Your task to perform on an android device: Open location settings Image 0: 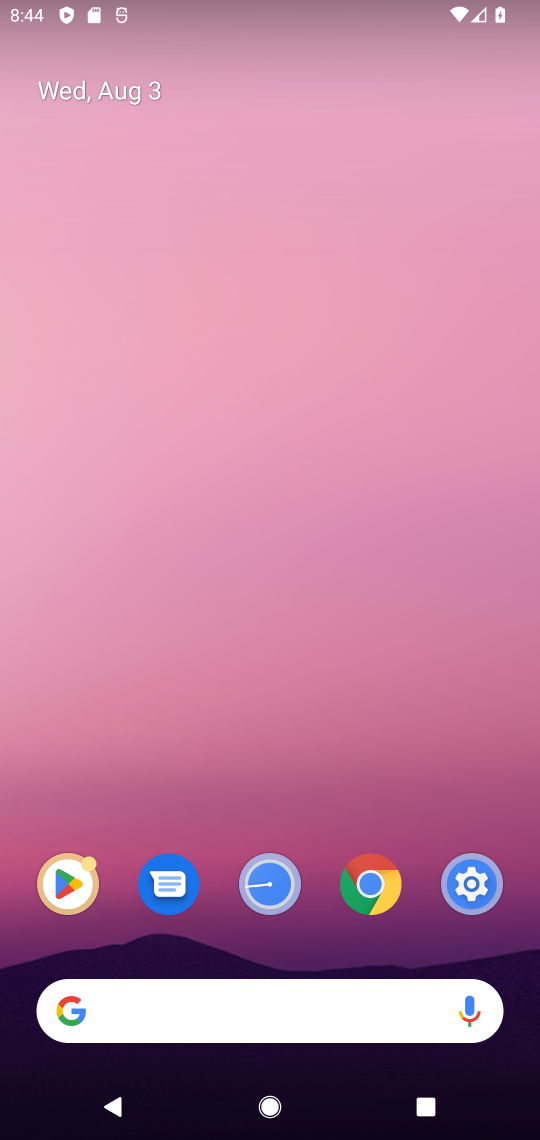
Step 0: drag from (201, 928) to (215, 117)
Your task to perform on an android device: Open location settings Image 1: 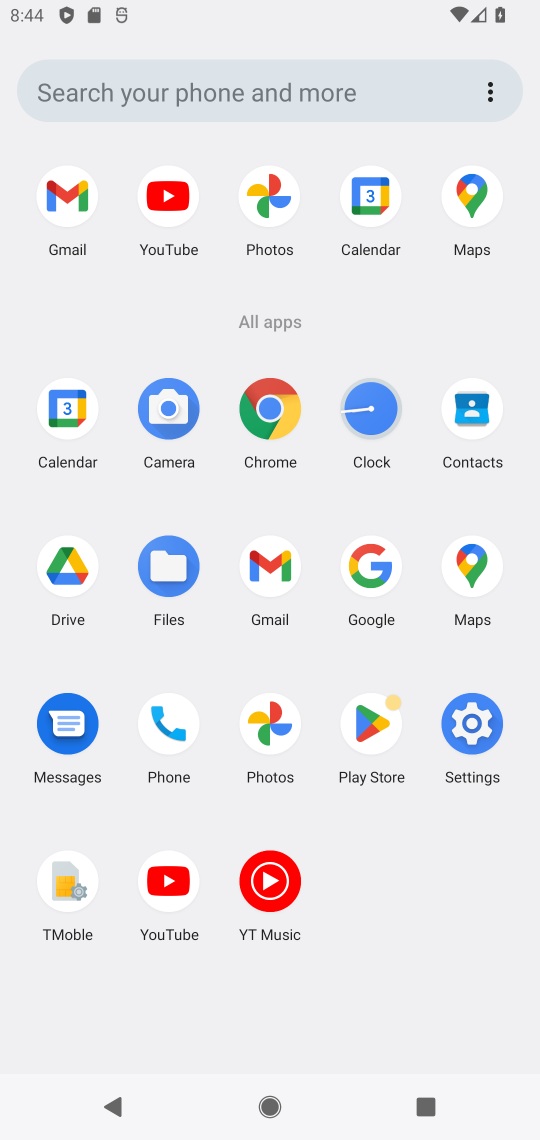
Step 1: click (475, 747)
Your task to perform on an android device: Open location settings Image 2: 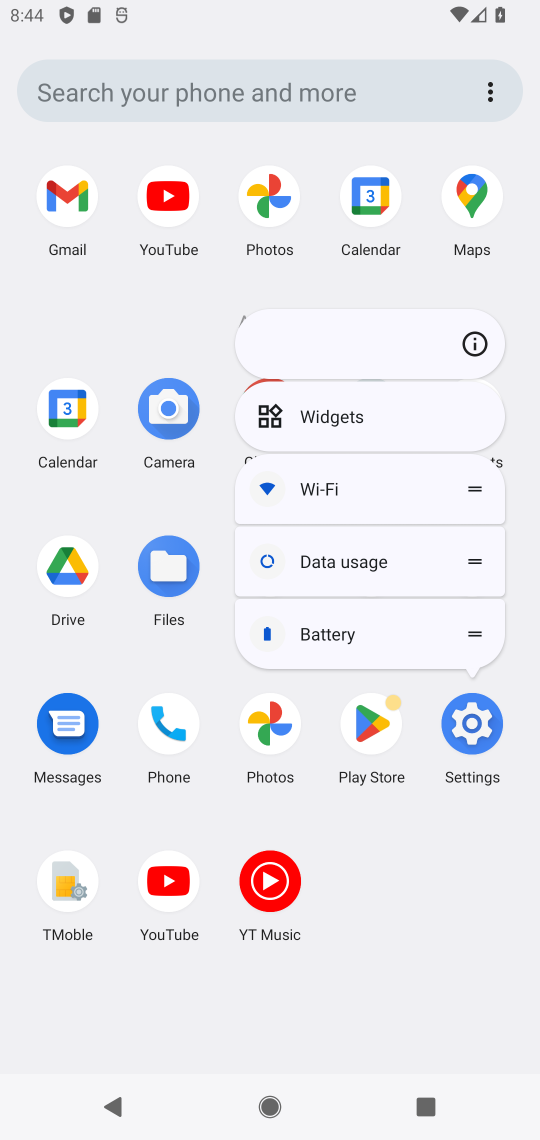
Step 2: click (479, 331)
Your task to perform on an android device: Open location settings Image 3: 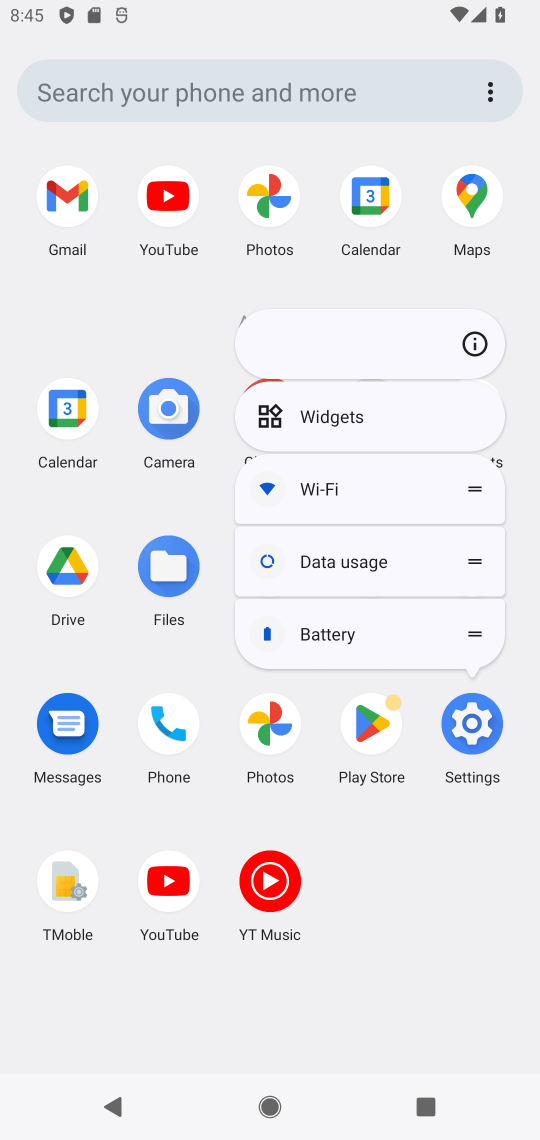
Step 3: click (463, 356)
Your task to perform on an android device: Open location settings Image 4: 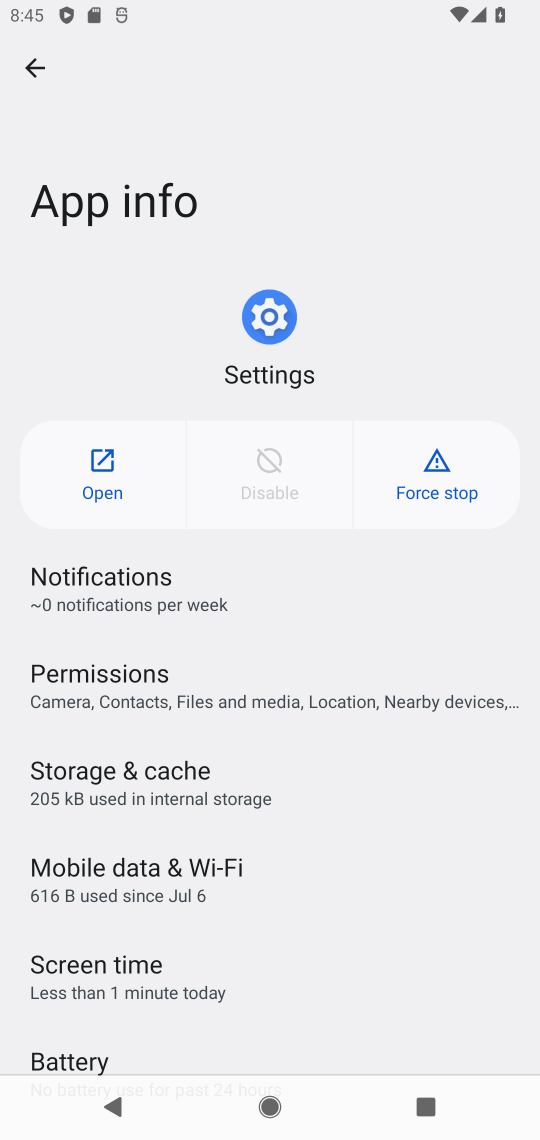
Step 4: click (70, 453)
Your task to perform on an android device: Open location settings Image 5: 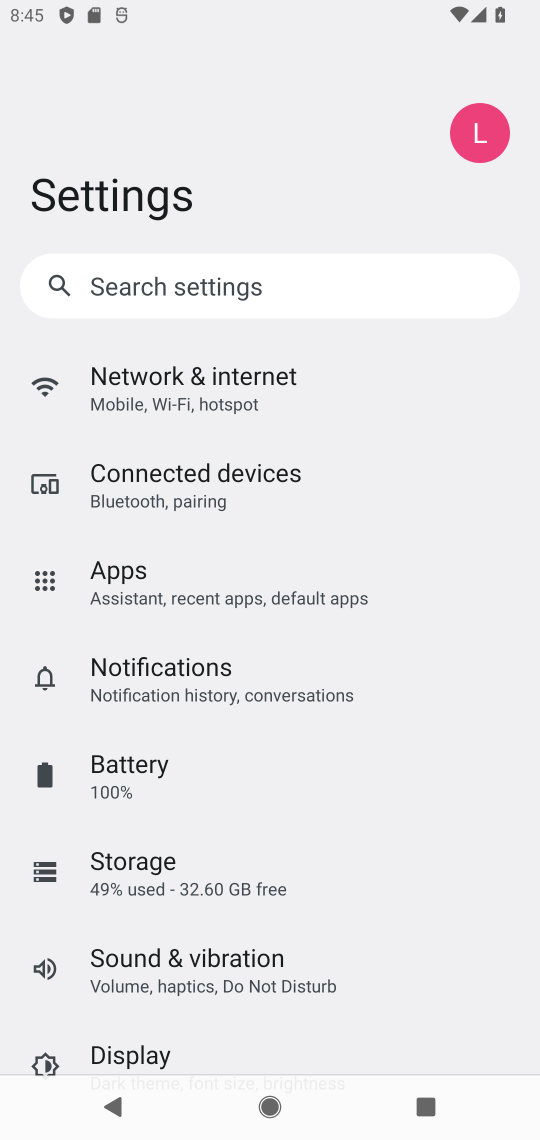
Step 5: drag from (194, 880) to (346, 188)
Your task to perform on an android device: Open location settings Image 6: 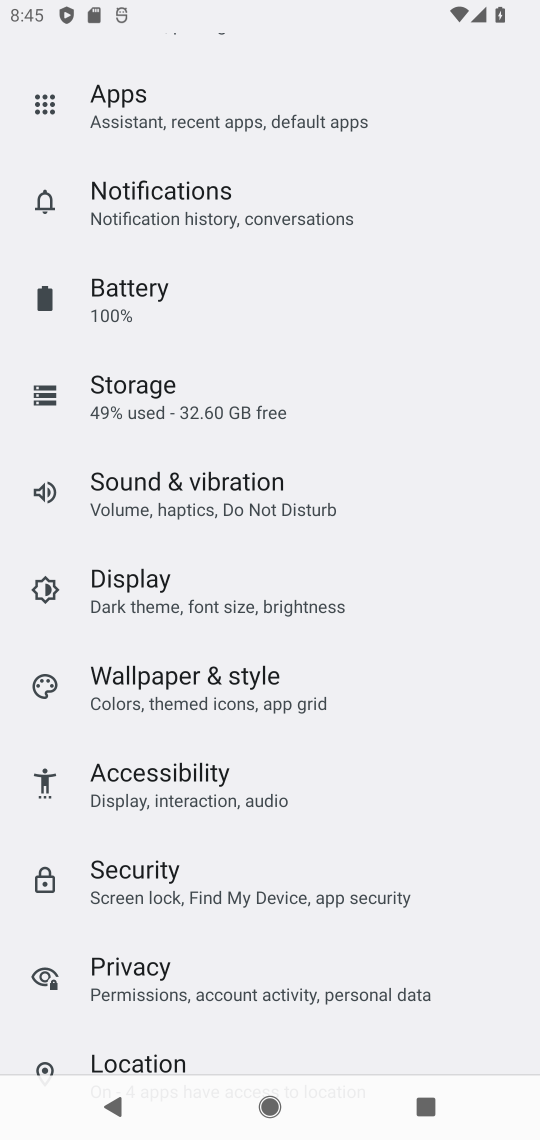
Step 6: drag from (210, 879) to (225, 407)
Your task to perform on an android device: Open location settings Image 7: 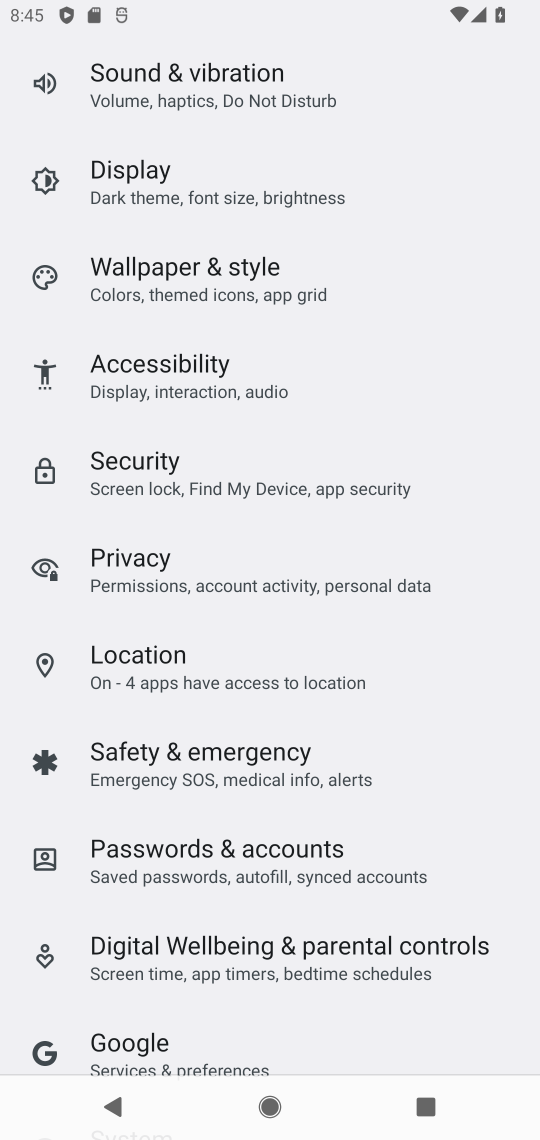
Step 7: click (191, 652)
Your task to perform on an android device: Open location settings Image 8: 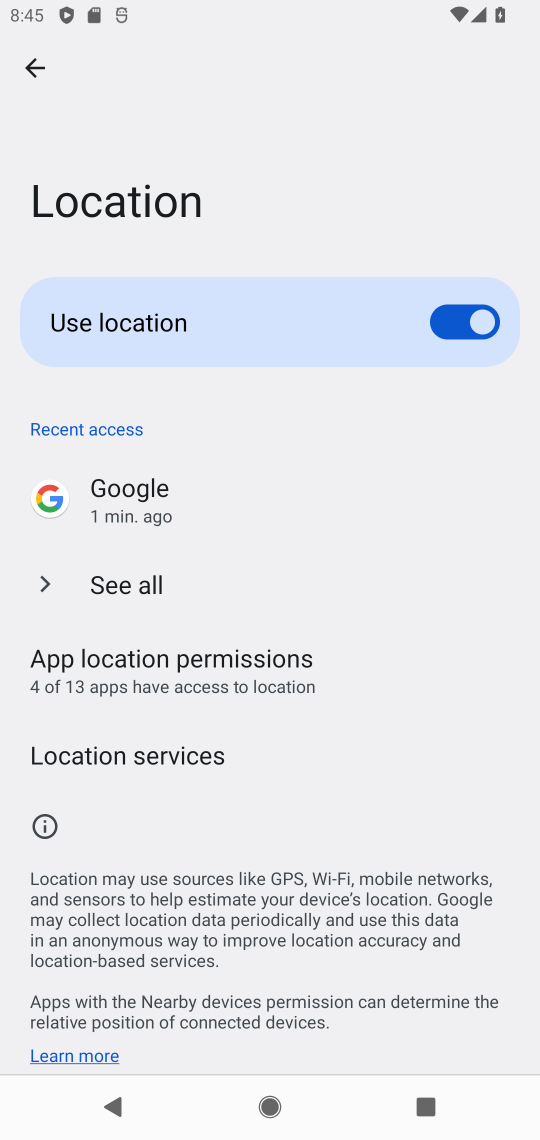
Step 8: task complete